Your task to perform on an android device: Open CNN.com Image 0: 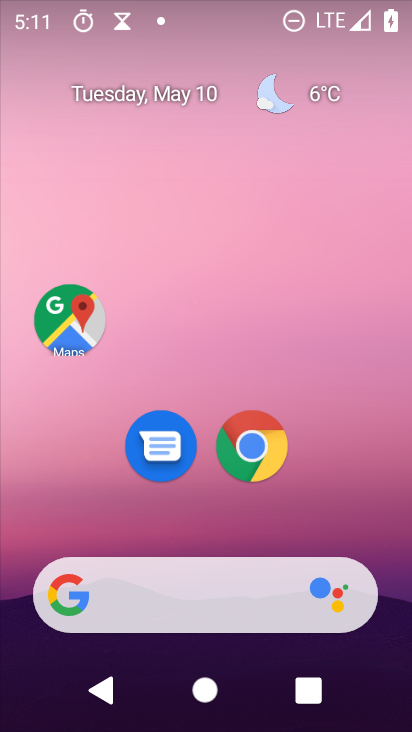
Step 0: click (257, 450)
Your task to perform on an android device: Open CNN.com Image 1: 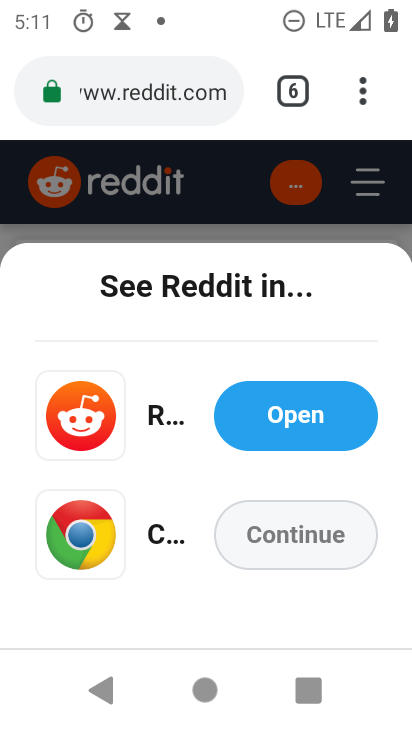
Step 1: click (298, 90)
Your task to perform on an android device: Open CNN.com Image 2: 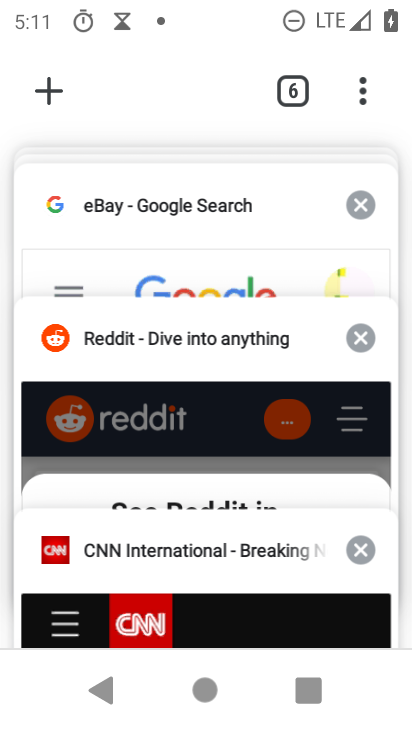
Step 2: click (121, 550)
Your task to perform on an android device: Open CNN.com Image 3: 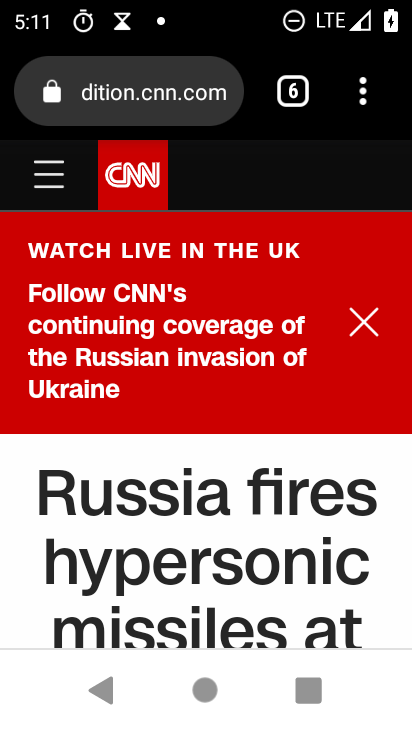
Step 3: task complete